Your task to perform on an android device: clear all cookies in the chrome app Image 0: 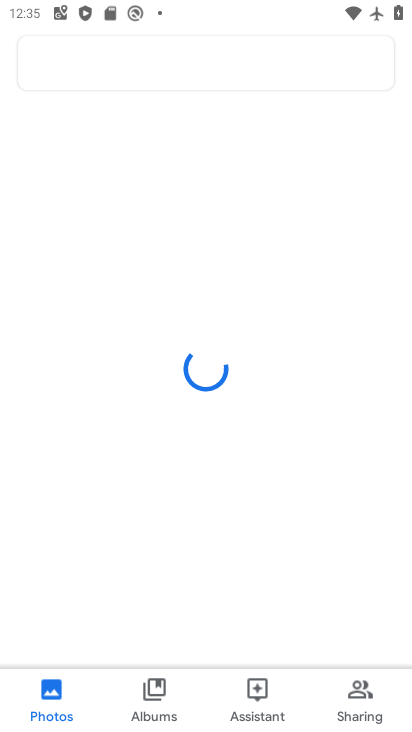
Step 0: drag from (262, 586) to (252, 217)
Your task to perform on an android device: clear all cookies in the chrome app Image 1: 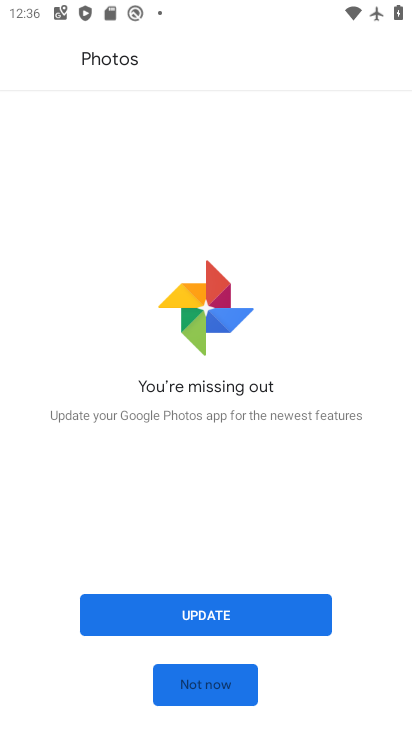
Step 1: press home button
Your task to perform on an android device: clear all cookies in the chrome app Image 2: 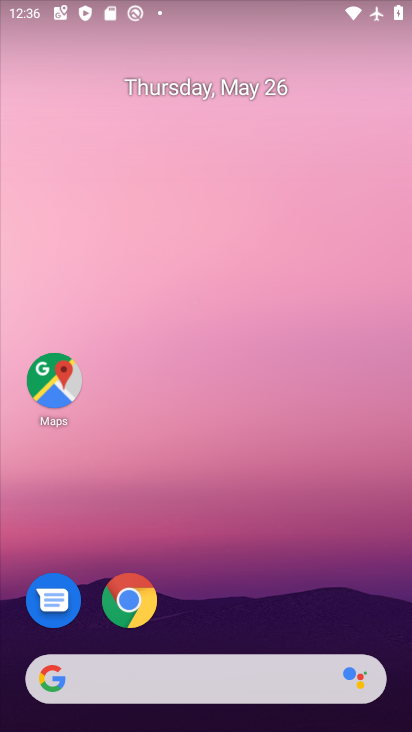
Step 2: drag from (280, 599) to (295, 200)
Your task to perform on an android device: clear all cookies in the chrome app Image 3: 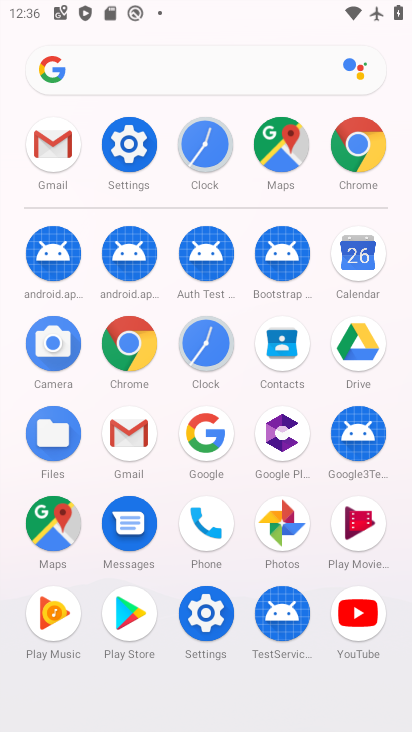
Step 3: click (127, 337)
Your task to perform on an android device: clear all cookies in the chrome app Image 4: 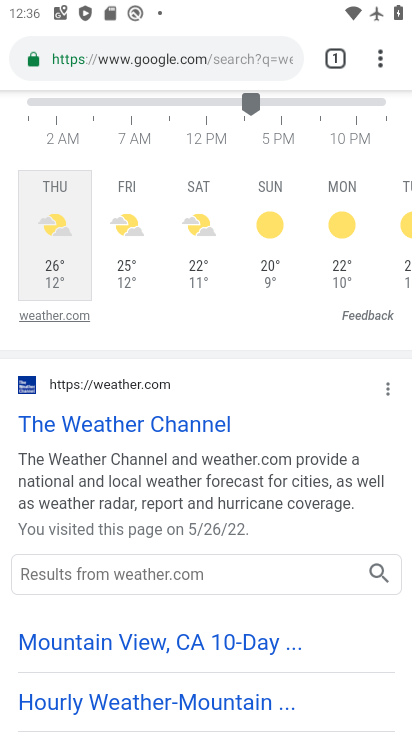
Step 4: drag from (386, 51) to (180, 343)
Your task to perform on an android device: clear all cookies in the chrome app Image 5: 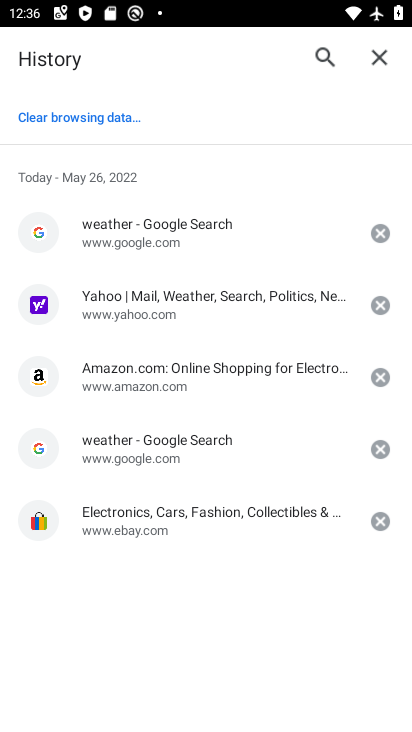
Step 5: click (97, 118)
Your task to perform on an android device: clear all cookies in the chrome app Image 6: 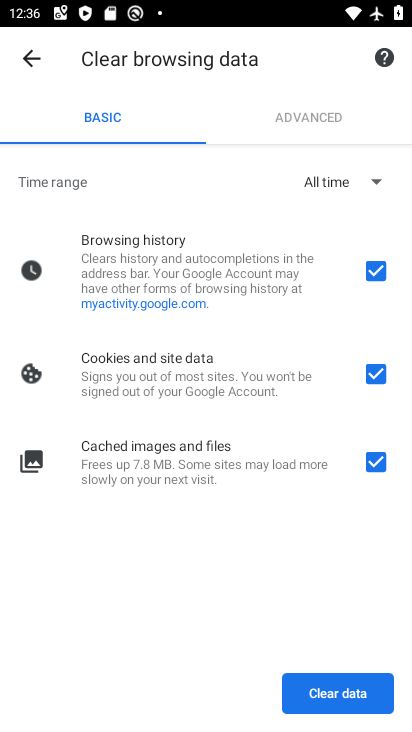
Step 6: click (364, 694)
Your task to perform on an android device: clear all cookies in the chrome app Image 7: 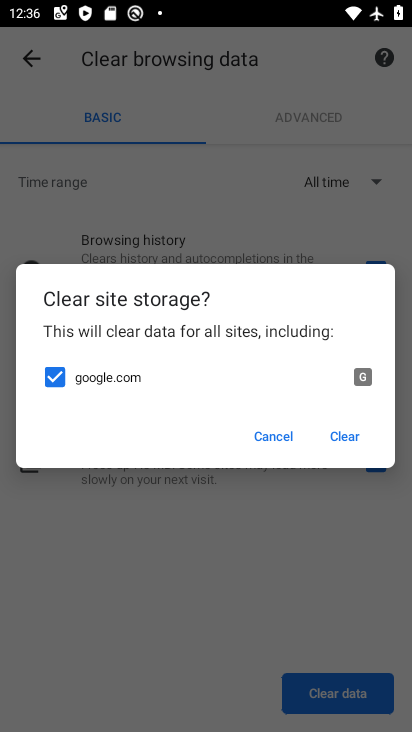
Step 7: click (346, 436)
Your task to perform on an android device: clear all cookies in the chrome app Image 8: 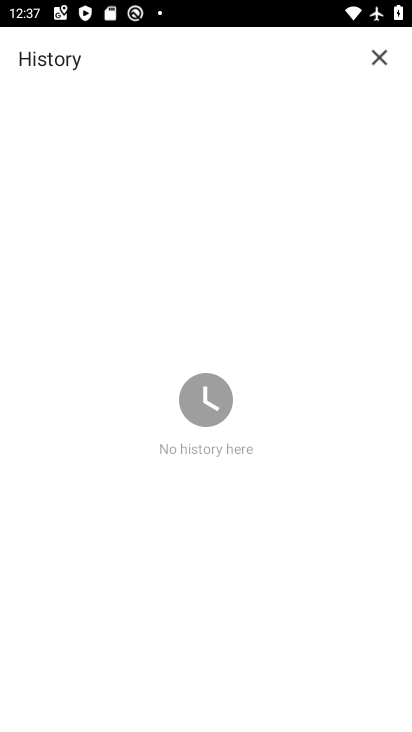
Step 8: task complete